Your task to perform on an android device: Go to accessibility settings Image 0: 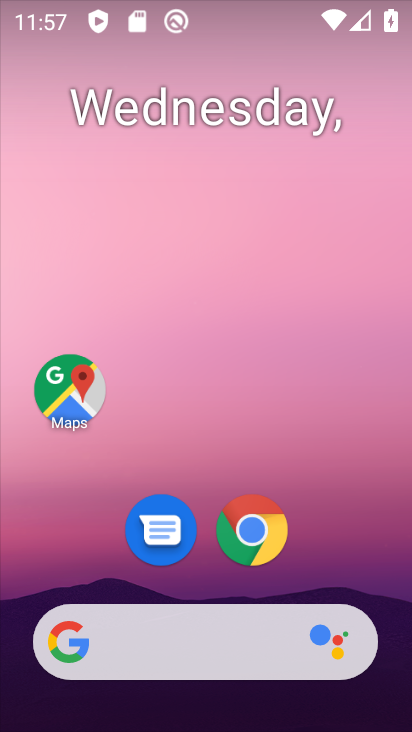
Step 0: drag from (257, 643) to (294, 160)
Your task to perform on an android device: Go to accessibility settings Image 1: 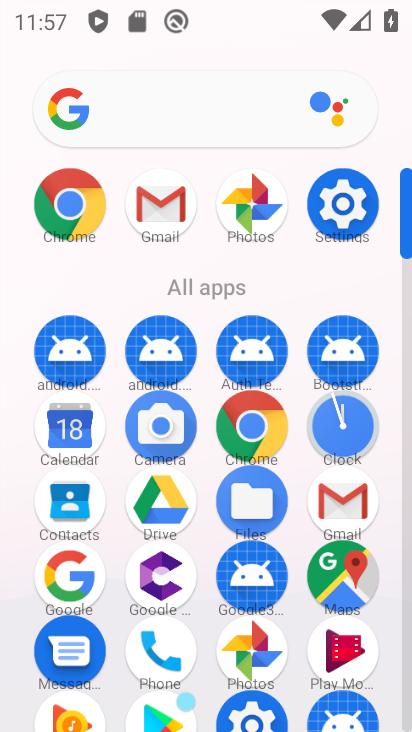
Step 1: click (318, 214)
Your task to perform on an android device: Go to accessibility settings Image 2: 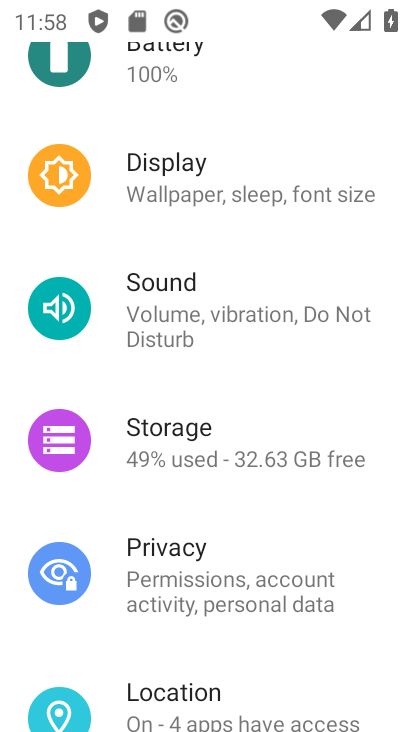
Step 2: drag from (255, 620) to (185, 4)
Your task to perform on an android device: Go to accessibility settings Image 3: 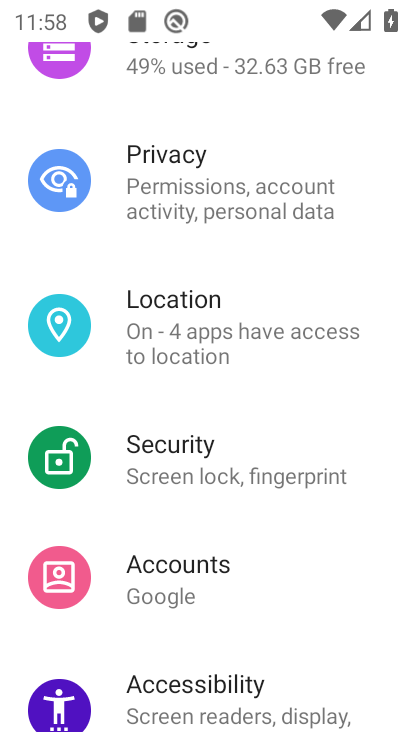
Step 3: click (197, 682)
Your task to perform on an android device: Go to accessibility settings Image 4: 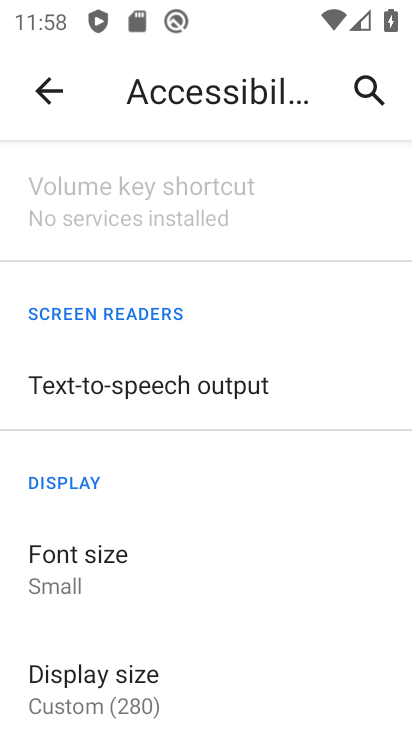
Step 4: task complete